Your task to perform on an android device: Open the stopwatch Image 0: 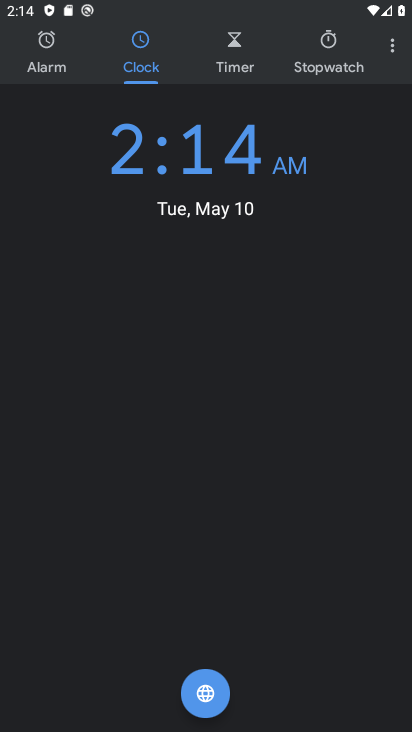
Step 0: click (336, 48)
Your task to perform on an android device: Open the stopwatch Image 1: 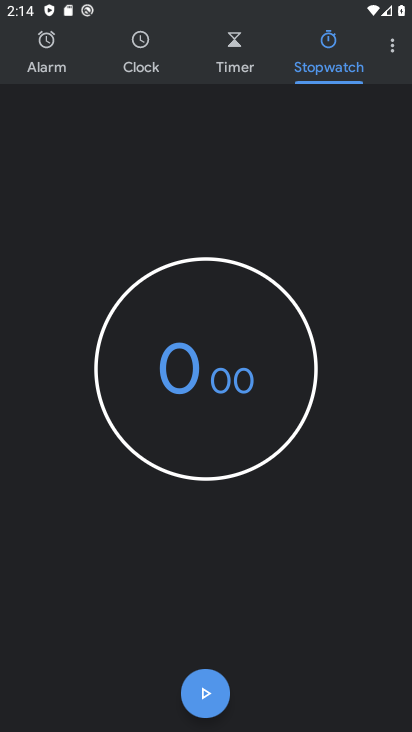
Step 1: task complete